Your task to perform on an android device: turn off wifi Image 0: 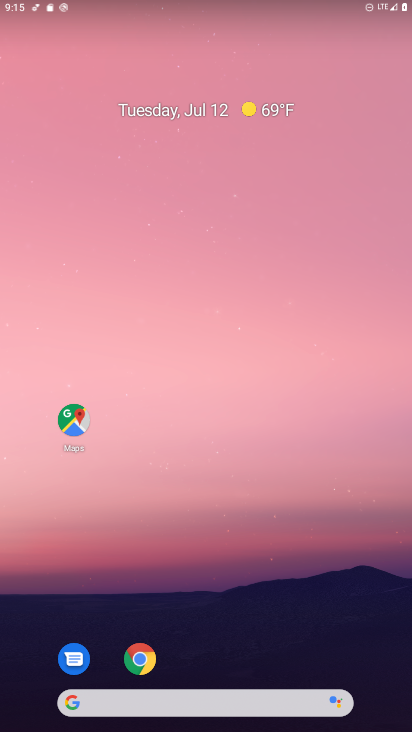
Step 0: click (221, 715)
Your task to perform on an android device: turn off wifi Image 1: 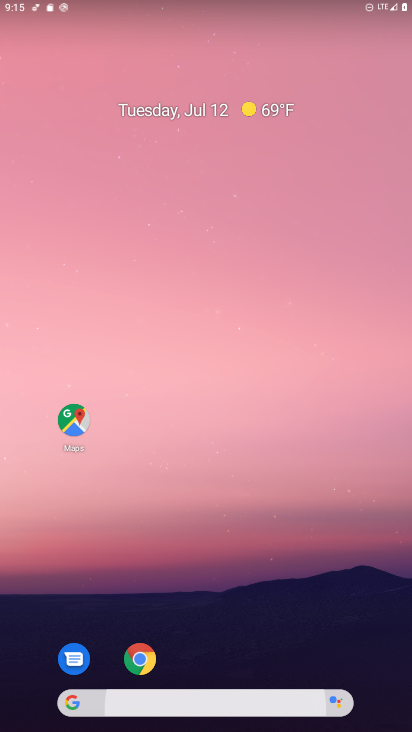
Step 1: drag from (197, 301) to (195, 118)
Your task to perform on an android device: turn off wifi Image 2: 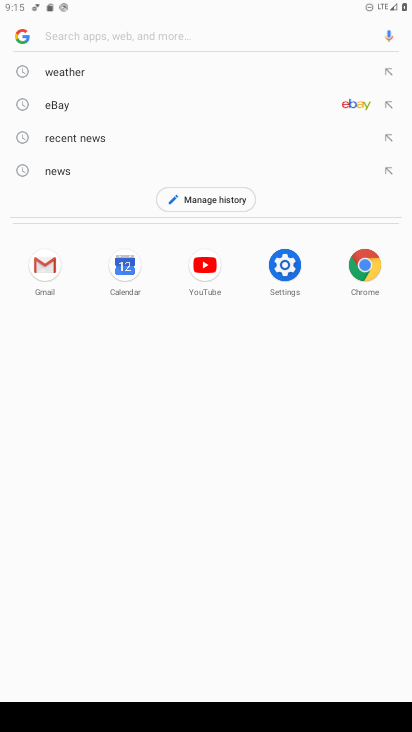
Step 2: press home button
Your task to perform on an android device: turn off wifi Image 3: 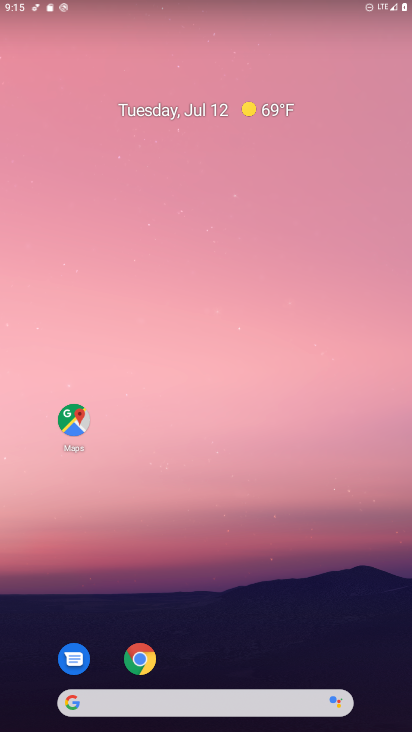
Step 3: drag from (244, 722) to (251, 219)
Your task to perform on an android device: turn off wifi Image 4: 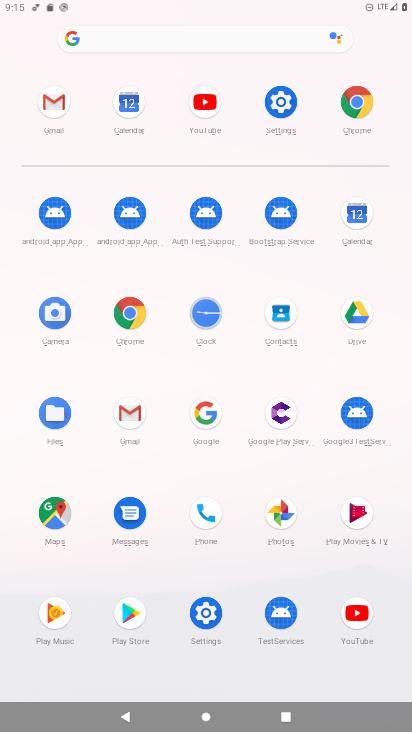
Step 4: click (285, 99)
Your task to perform on an android device: turn off wifi Image 5: 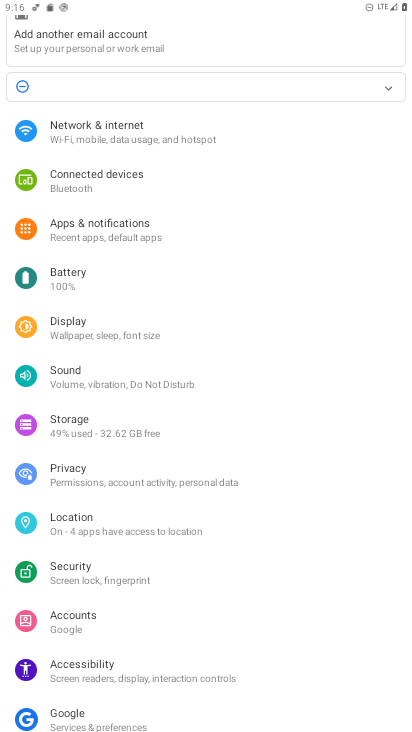
Step 5: click (76, 135)
Your task to perform on an android device: turn off wifi Image 6: 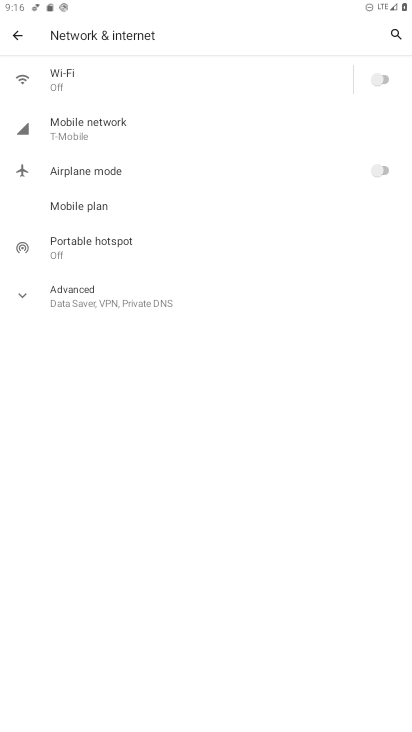
Step 6: task complete